Your task to perform on an android device: check the backup settings in the google photos Image 0: 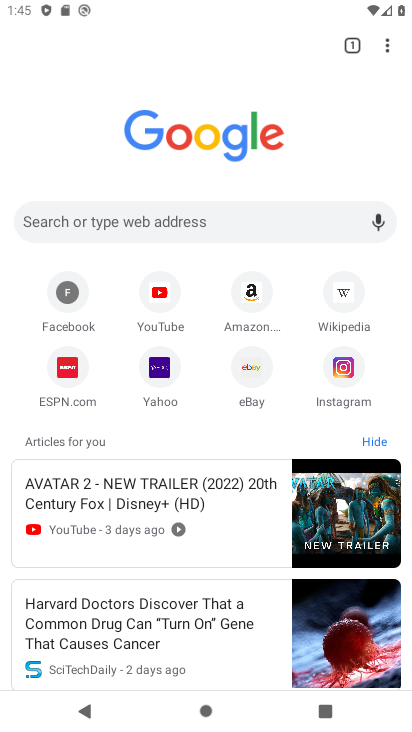
Step 0: press home button
Your task to perform on an android device: check the backup settings in the google photos Image 1: 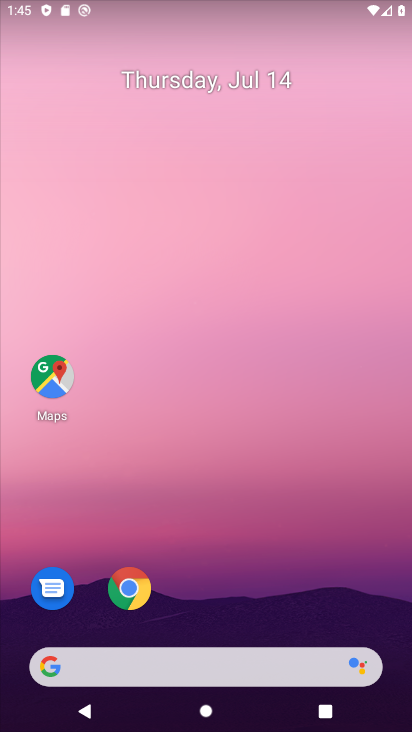
Step 1: drag from (210, 585) to (210, 88)
Your task to perform on an android device: check the backup settings in the google photos Image 2: 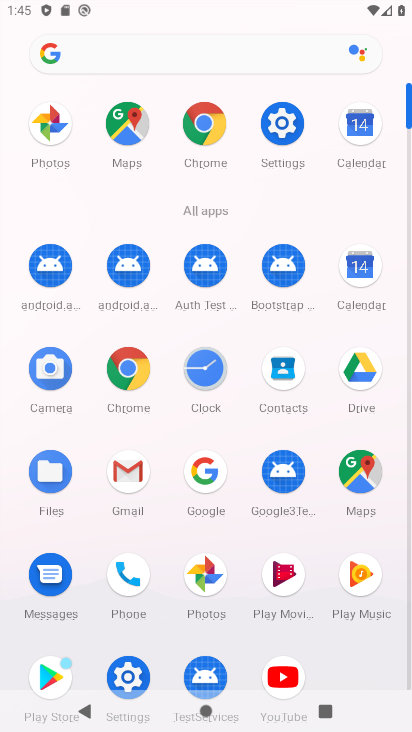
Step 2: click (207, 560)
Your task to perform on an android device: check the backup settings in the google photos Image 3: 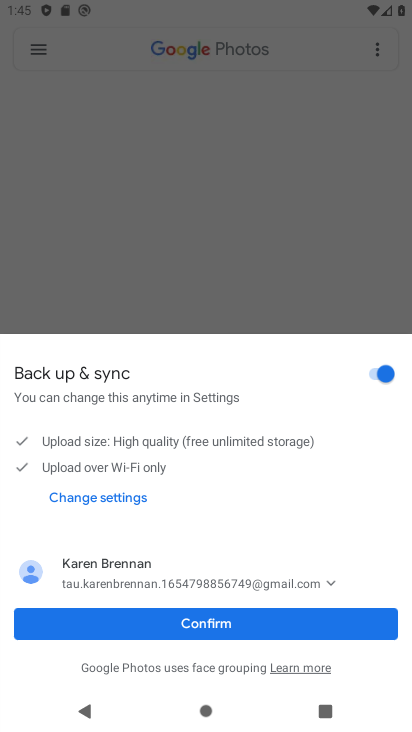
Step 3: click (225, 620)
Your task to perform on an android device: check the backup settings in the google photos Image 4: 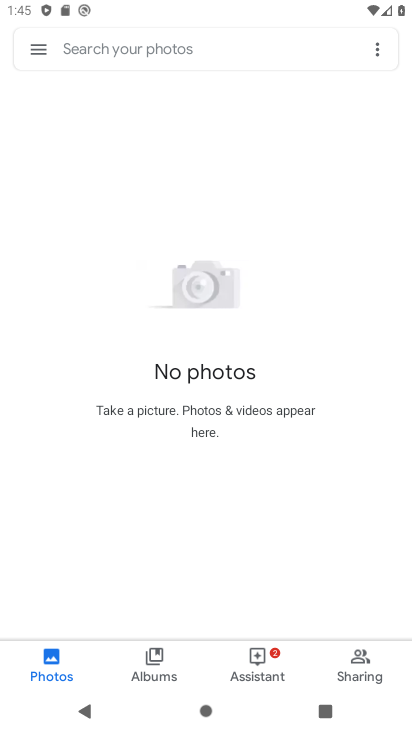
Step 4: click (40, 51)
Your task to perform on an android device: check the backup settings in the google photos Image 5: 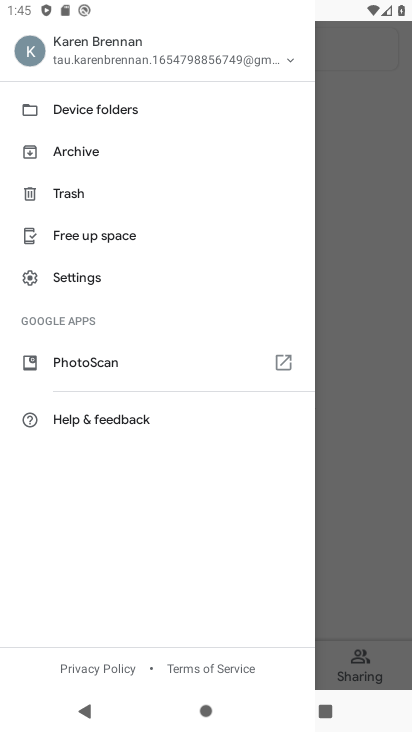
Step 5: click (65, 268)
Your task to perform on an android device: check the backup settings in the google photos Image 6: 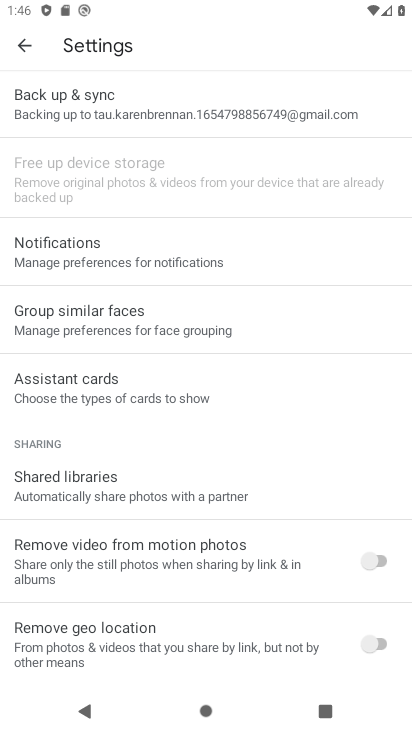
Step 6: click (107, 100)
Your task to perform on an android device: check the backup settings in the google photos Image 7: 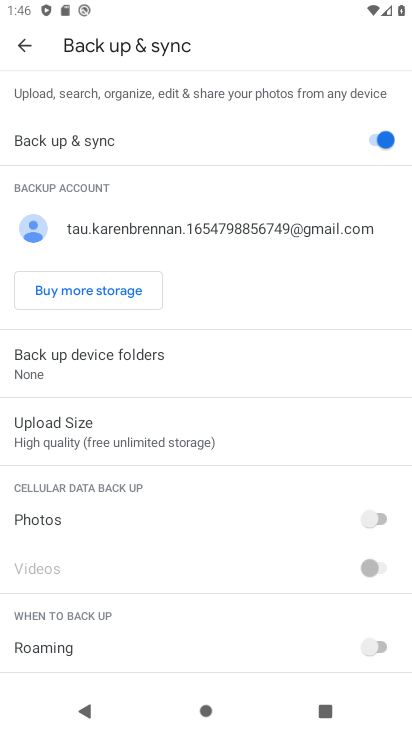
Step 7: task complete